Your task to perform on an android device: Open accessibility settings Image 0: 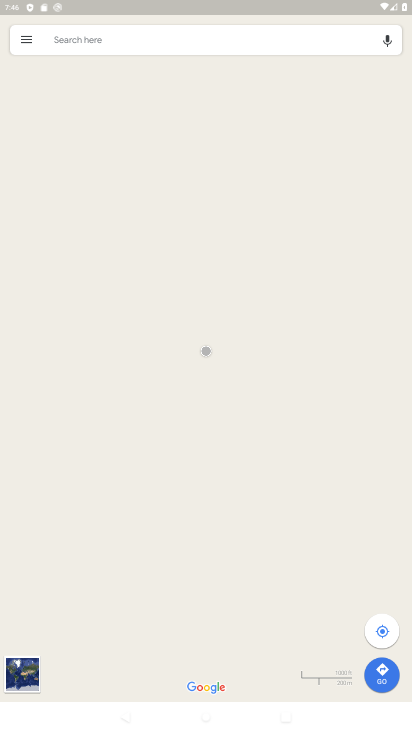
Step 0: press home button
Your task to perform on an android device: Open accessibility settings Image 1: 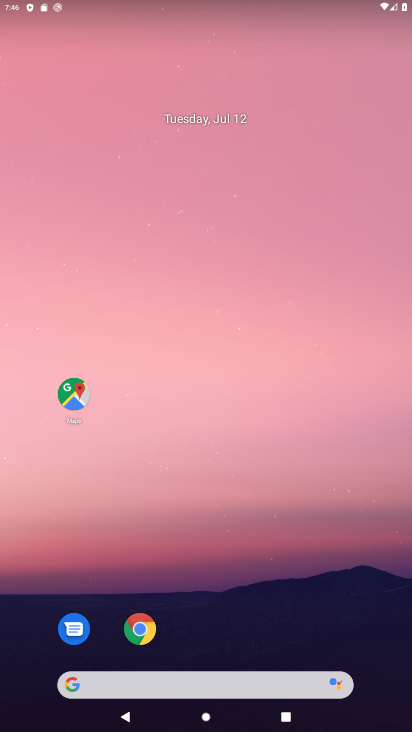
Step 1: drag from (177, 623) to (194, 2)
Your task to perform on an android device: Open accessibility settings Image 2: 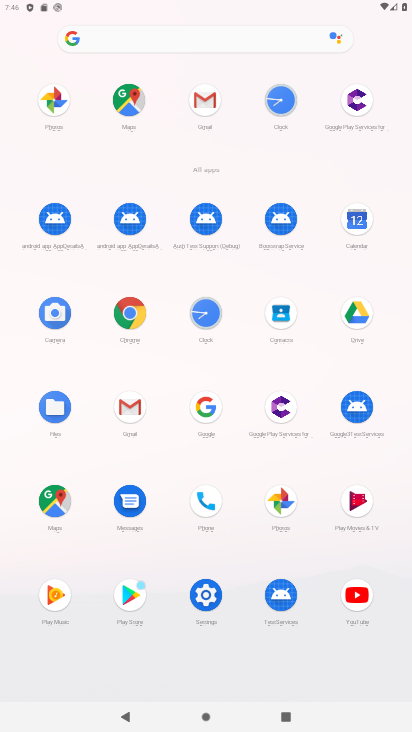
Step 2: click (197, 582)
Your task to perform on an android device: Open accessibility settings Image 3: 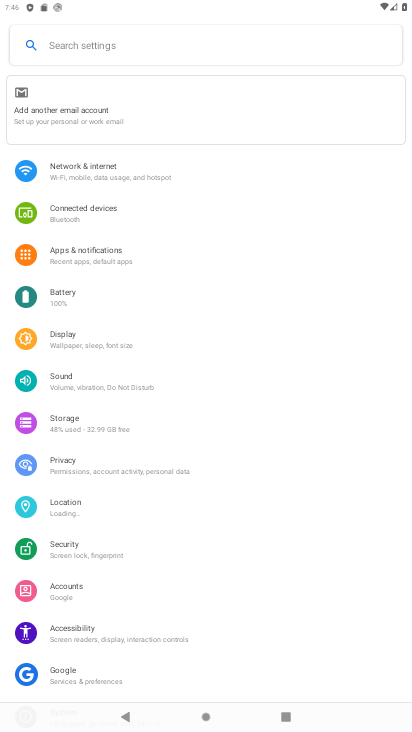
Step 3: click (119, 632)
Your task to perform on an android device: Open accessibility settings Image 4: 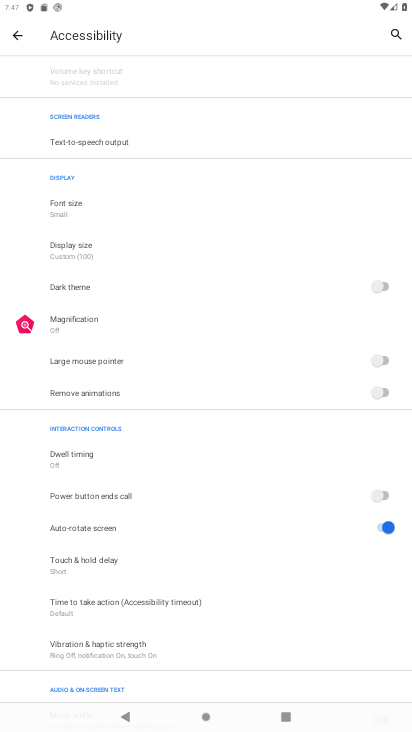
Step 4: task complete